Your task to perform on an android device: turn off smart reply in the gmail app Image 0: 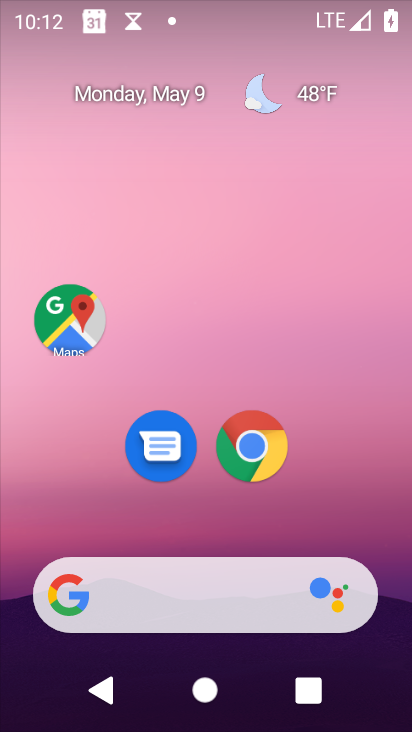
Step 0: drag from (281, 492) to (281, 44)
Your task to perform on an android device: turn off smart reply in the gmail app Image 1: 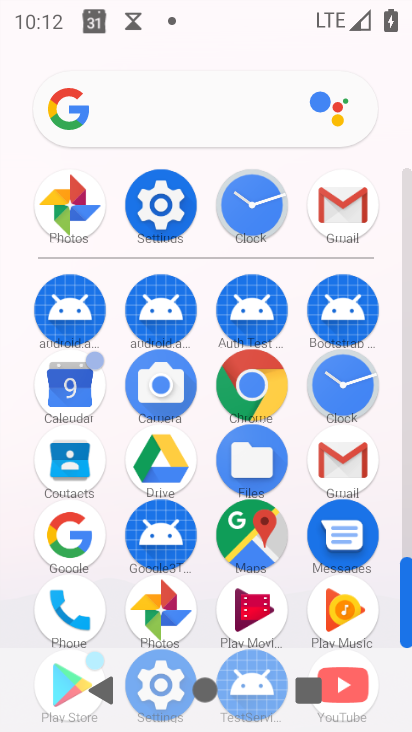
Step 1: click (338, 219)
Your task to perform on an android device: turn off smart reply in the gmail app Image 2: 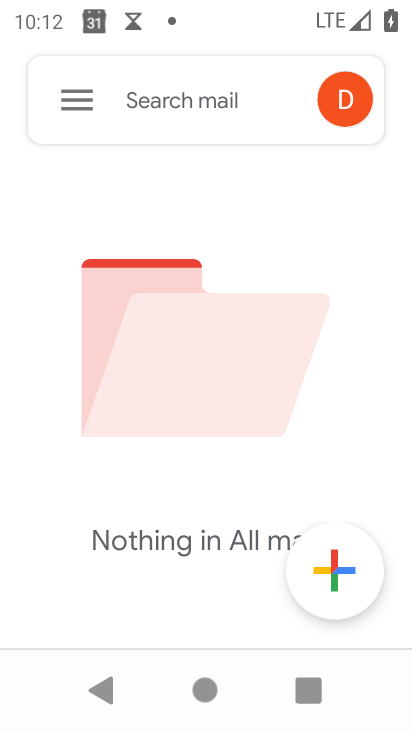
Step 2: click (72, 103)
Your task to perform on an android device: turn off smart reply in the gmail app Image 3: 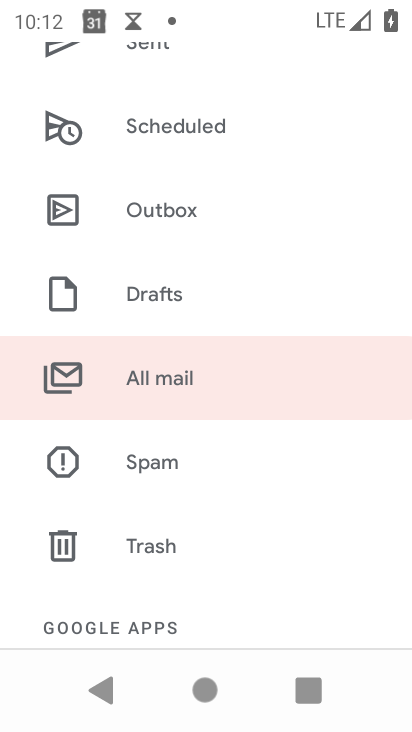
Step 3: drag from (222, 575) to (267, 265)
Your task to perform on an android device: turn off smart reply in the gmail app Image 4: 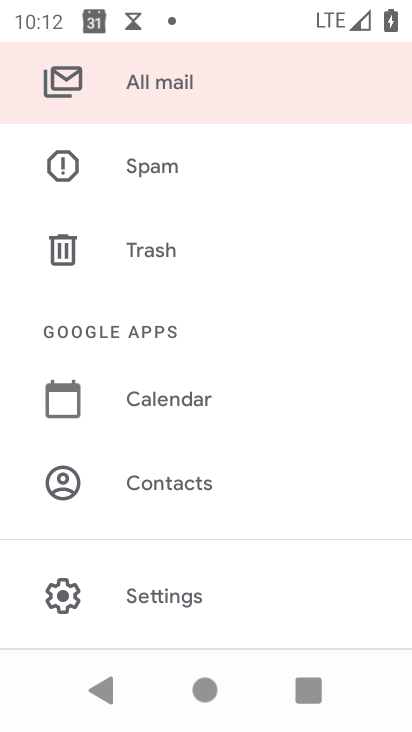
Step 4: click (192, 593)
Your task to perform on an android device: turn off smart reply in the gmail app Image 5: 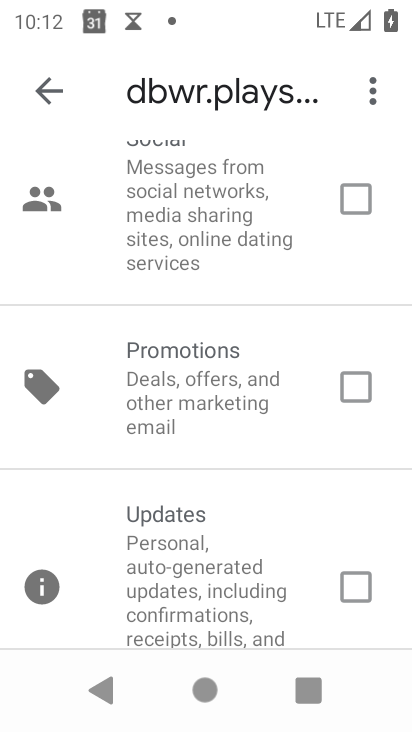
Step 5: drag from (267, 190) to (234, 578)
Your task to perform on an android device: turn off smart reply in the gmail app Image 6: 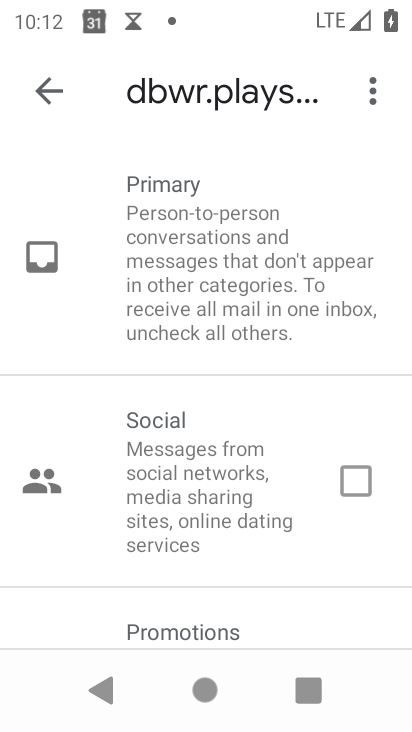
Step 6: drag from (241, 210) to (224, 528)
Your task to perform on an android device: turn off smart reply in the gmail app Image 7: 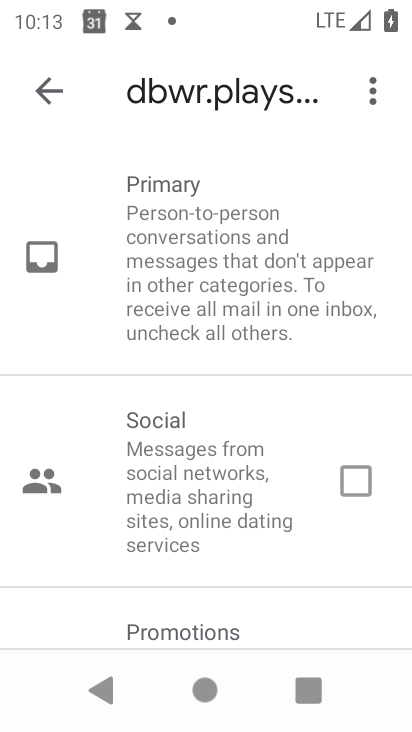
Step 7: click (46, 84)
Your task to perform on an android device: turn off smart reply in the gmail app Image 8: 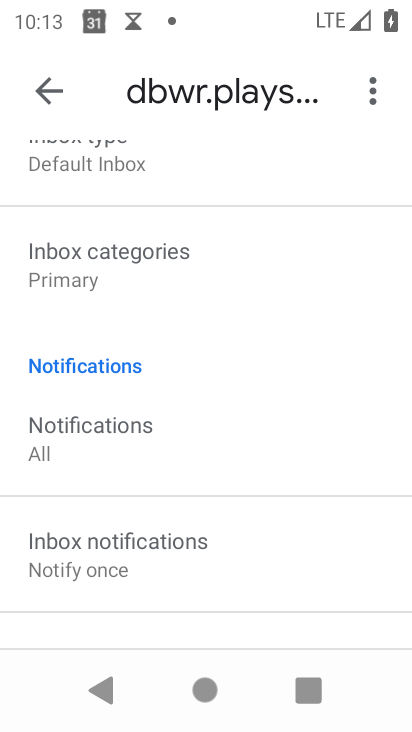
Step 8: drag from (255, 592) to (290, 300)
Your task to perform on an android device: turn off smart reply in the gmail app Image 9: 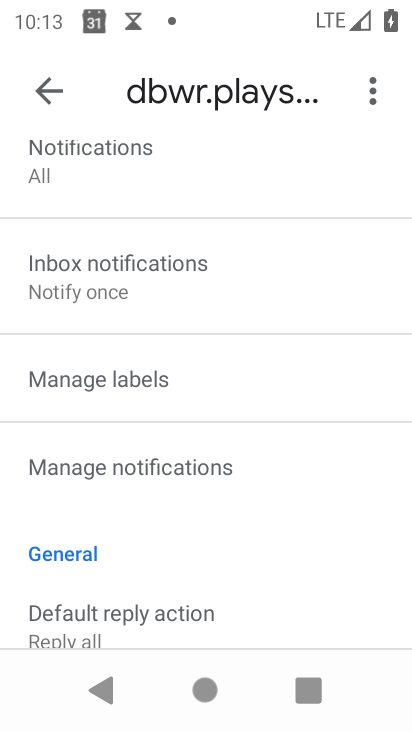
Step 9: drag from (223, 592) to (242, 247)
Your task to perform on an android device: turn off smart reply in the gmail app Image 10: 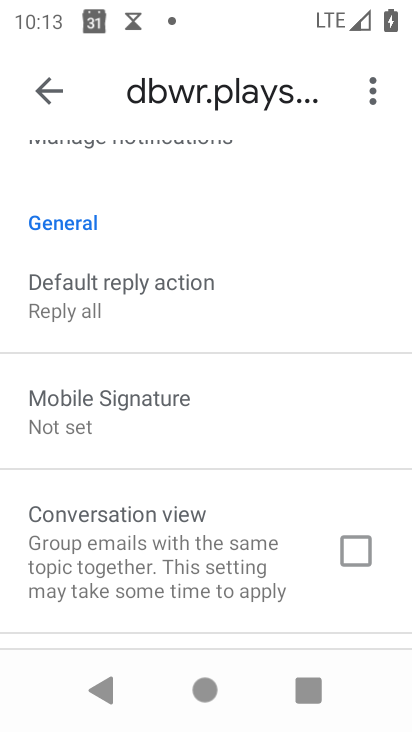
Step 10: drag from (289, 577) to (289, 321)
Your task to perform on an android device: turn off smart reply in the gmail app Image 11: 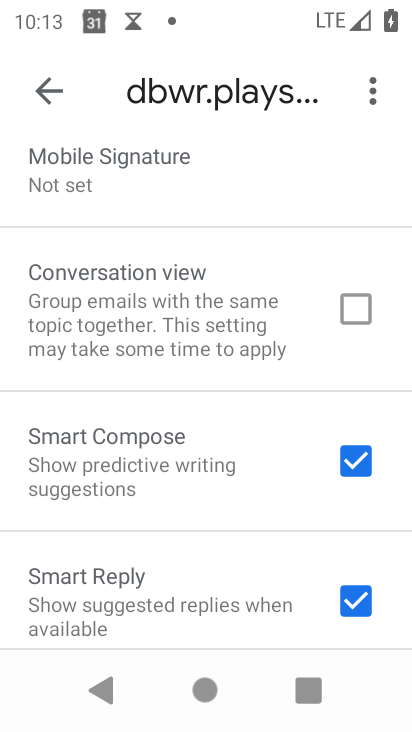
Step 11: click (347, 604)
Your task to perform on an android device: turn off smart reply in the gmail app Image 12: 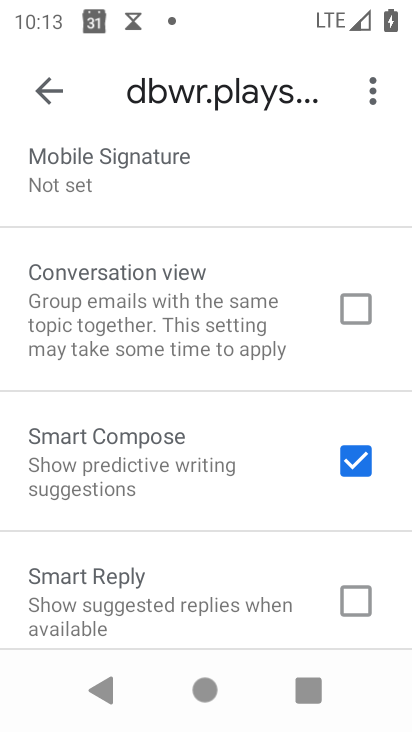
Step 12: task complete